Your task to perform on an android device: see creations saved in the google photos Image 0: 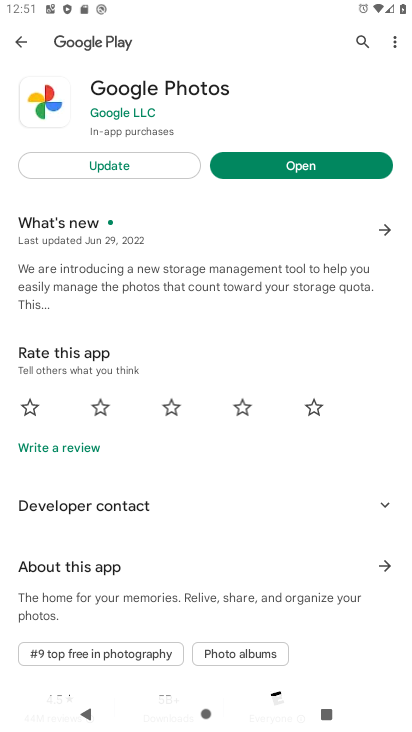
Step 0: click (280, 158)
Your task to perform on an android device: see creations saved in the google photos Image 1: 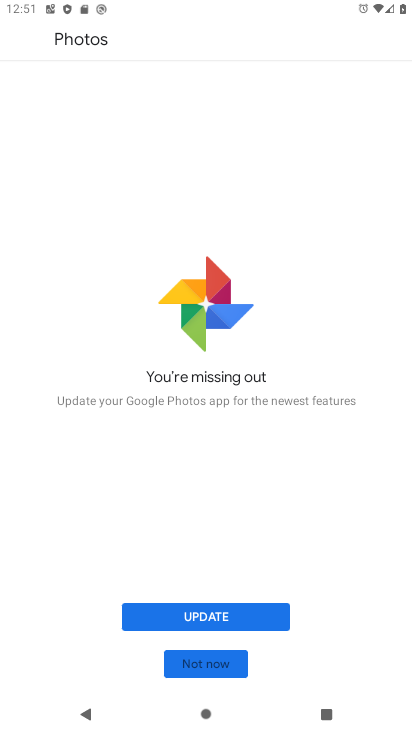
Step 1: click (214, 665)
Your task to perform on an android device: see creations saved in the google photos Image 2: 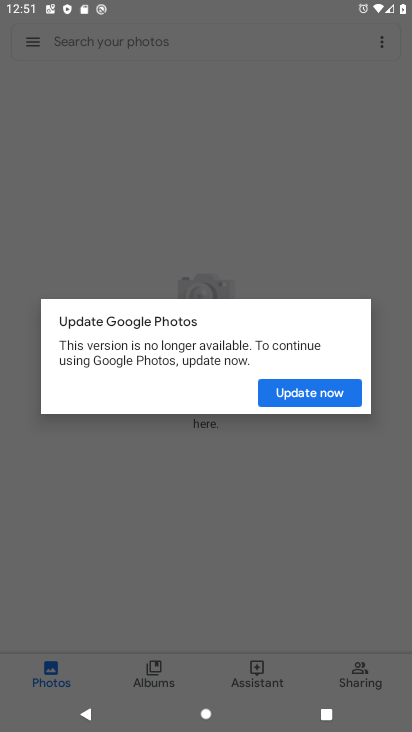
Step 2: click (297, 393)
Your task to perform on an android device: see creations saved in the google photos Image 3: 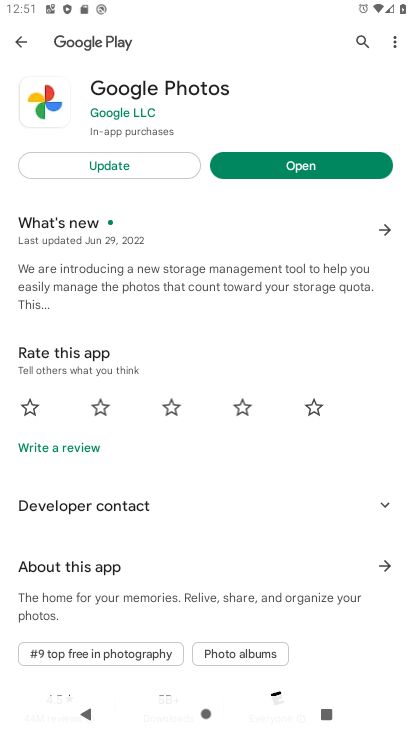
Step 3: click (302, 175)
Your task to perform on an android device: see creations saved in the google photos Image 4: 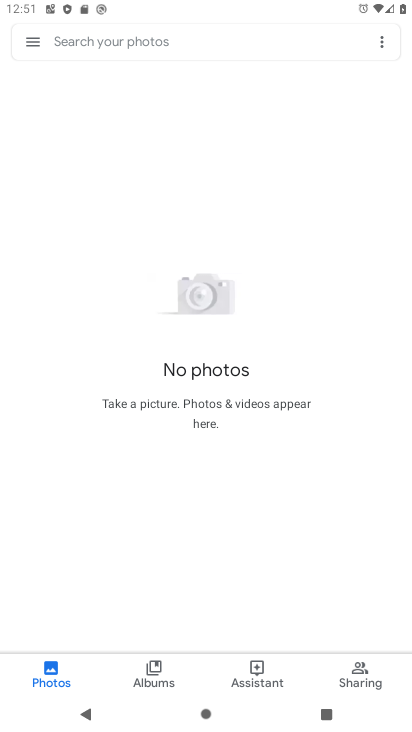
Step 4: click (38, 29)
Your task to perform on an android device: see creations saved in the google photos Image 5: 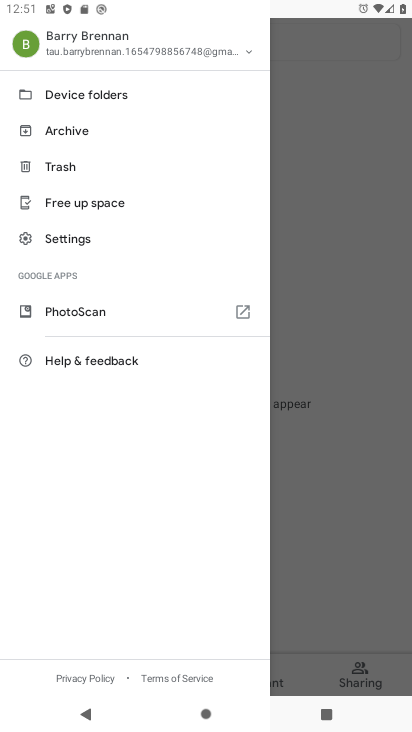
Step 5: click (71, 123)
Your task to perform on an android device: see creations saved in the google photos Image 6: 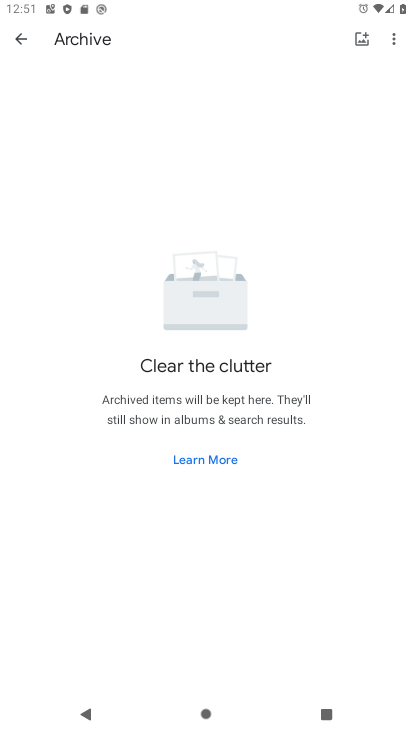
Step 6: task complete